Your task to perform on an android device: delete the emails in spam in the gmail app Image 0: 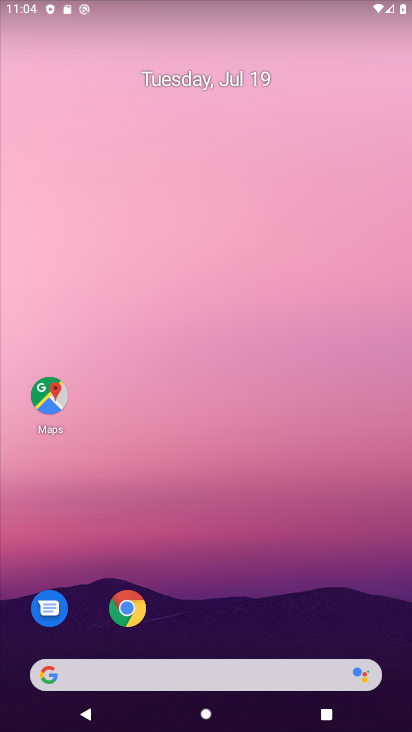
Step 0: press home button
Your task to perform on an android device: delete the emails in spam in the gmail app Image 1: 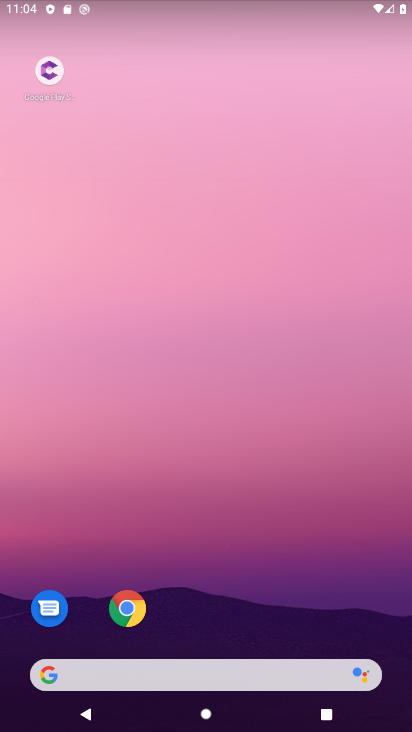
Step 1: drag from (266, 612) to (220, 94)
Your task to perform on an android device: delete the emails in spam in the gmail app Image 2: 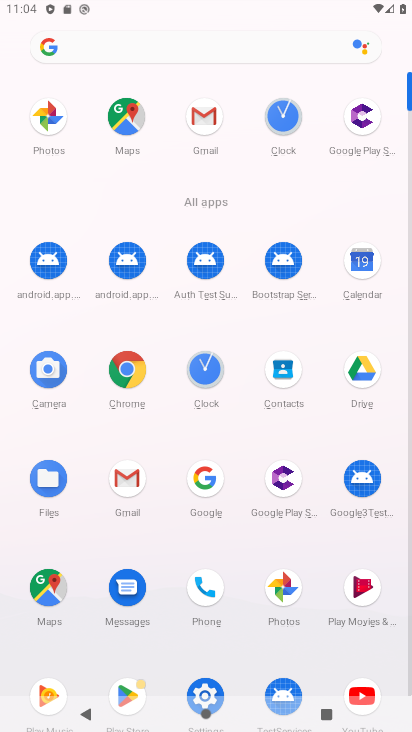
Step 2: click (213, 109)
Your task to perform on an android device: delete the emails in spam in the gmail app Image 3: 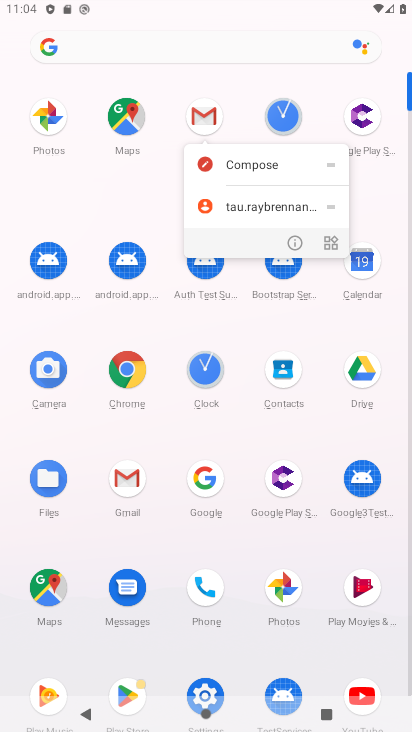
Step 3: click (204, 109)
Your task to perform on an android device: delete the emails in spam in the gmail app Image 4: 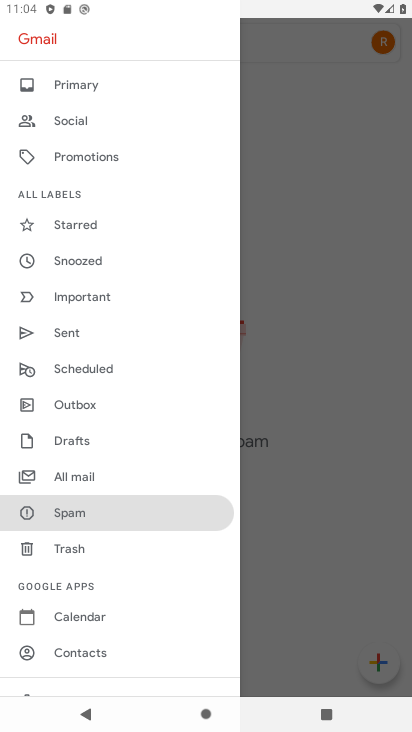
Step 4: click (76, 514)
Your task to perform on an android device: delete the emails in spam in the gmail app Image 5: 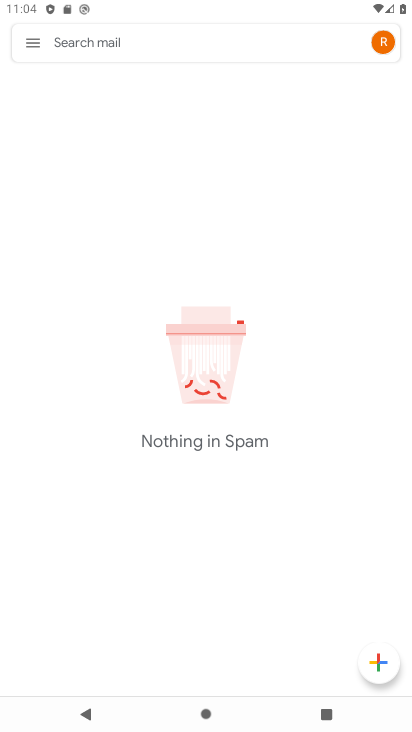
Step 5: task complete